Your task to perform on an android device: toggle sleep mode Image 0: 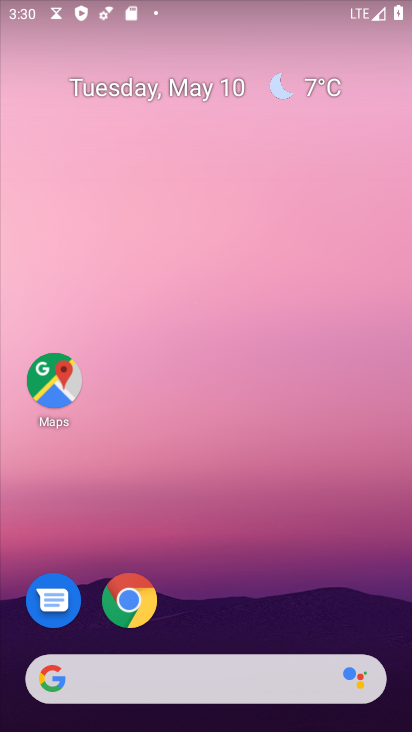
Step 0: click (136, 582)
Your task to perform on an android device: toggle sleep mode Image 1: 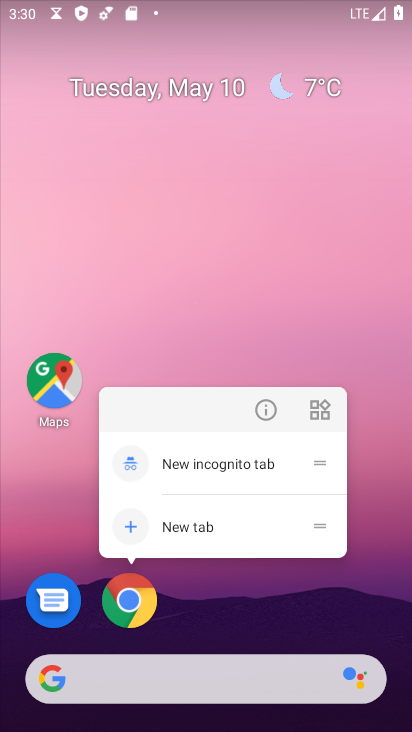
Step 1: click (144, 586)
Your task to perform on an android device: toggle sleep mode Image 2: 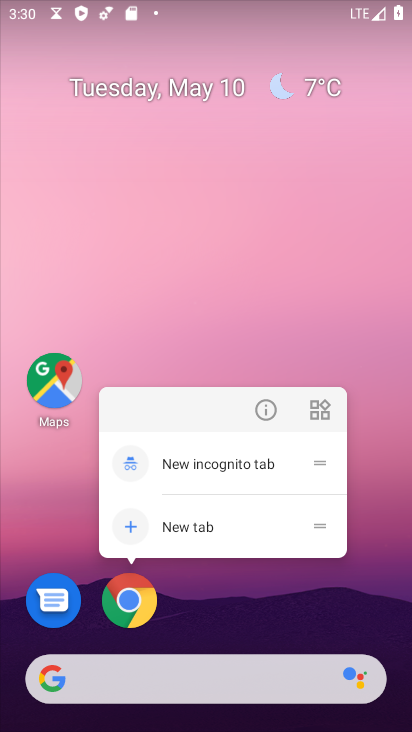
Step 2: click (159, 608)
Your task to perform on an android device: toggle sleep mode Image 3: 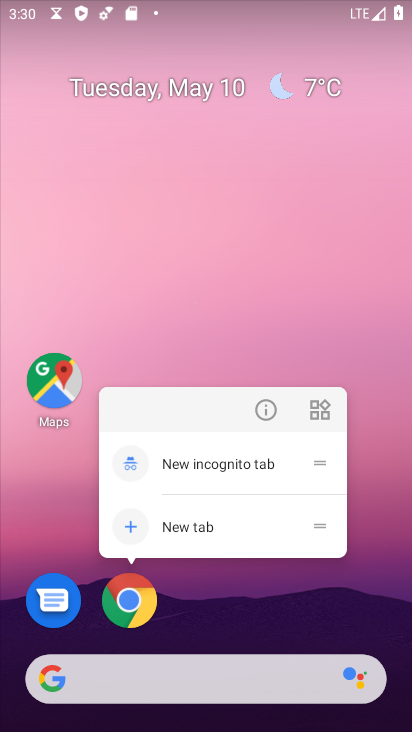
Step 3: click (138, 600)
Your task to perform on an android device: toggle sleep mode Image 4: 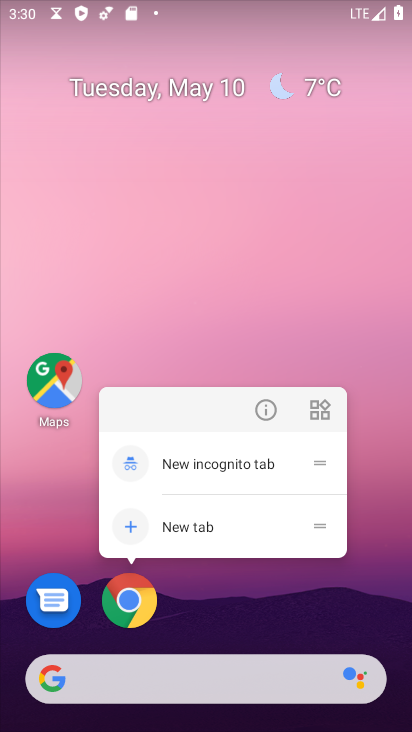
Step 4: click (137, 599)
Your task to perform on an android device: toggle sleep mode Image 5: 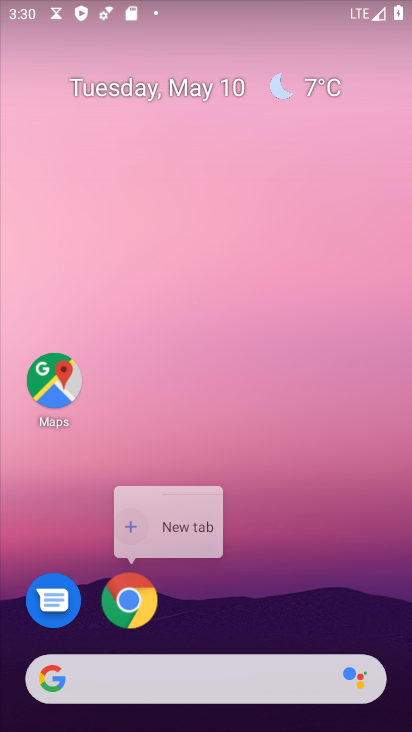
Step 5: click (137, 599)
Your task to perform on an android device: toggle sleep mode Image 6: 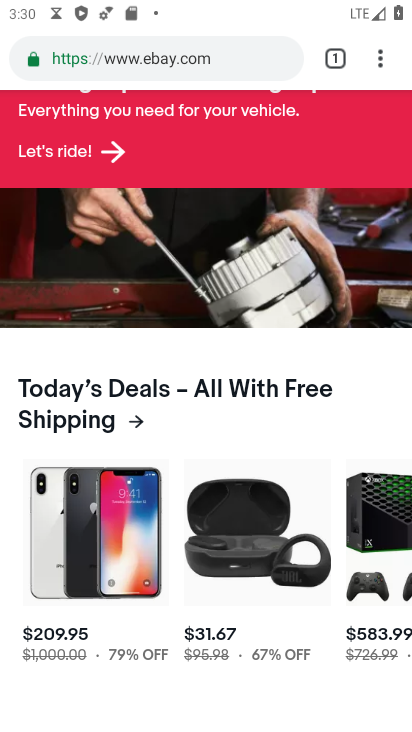
Step 6: click (383, 54)
Your task to perform on an android device: toggle sleep mode Image 7: 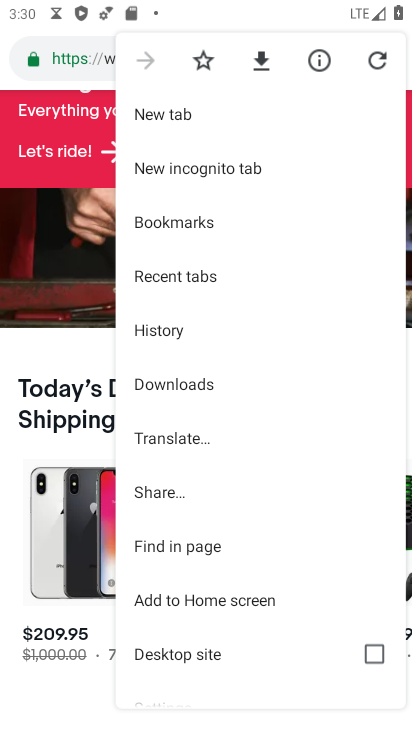
Step 7: drag from (207, 604) to (211, 310)
Your task to perform on an android device: toggle sleep mode Image 8: 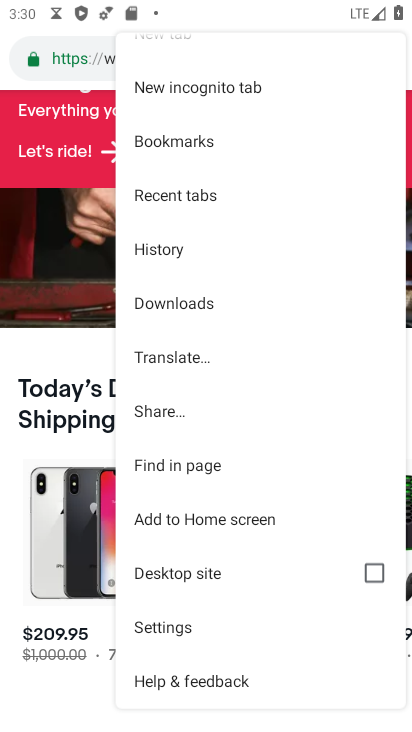
Step 8: click (302, 635)
Your task to perform on an android device: toggle sleep mode Image 9: 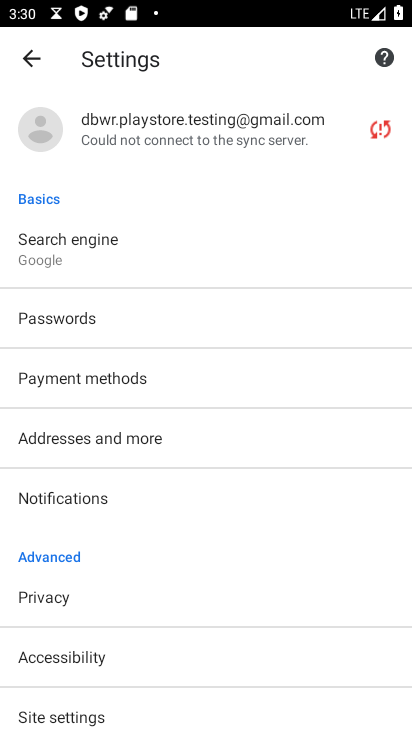
Step 9: drag from (94, 586) to (144, 355)
Your task to perform on an android device: toggle sleep mode Image 10: 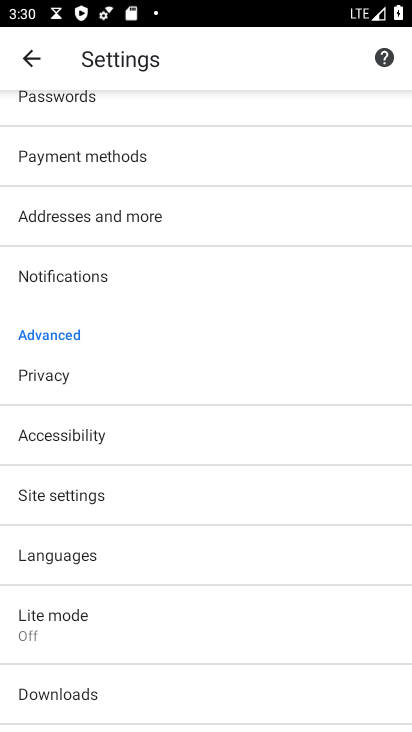
Step 10: click (201, 501)
Your task to perform on an android device: toggle sleep mode Image 11: 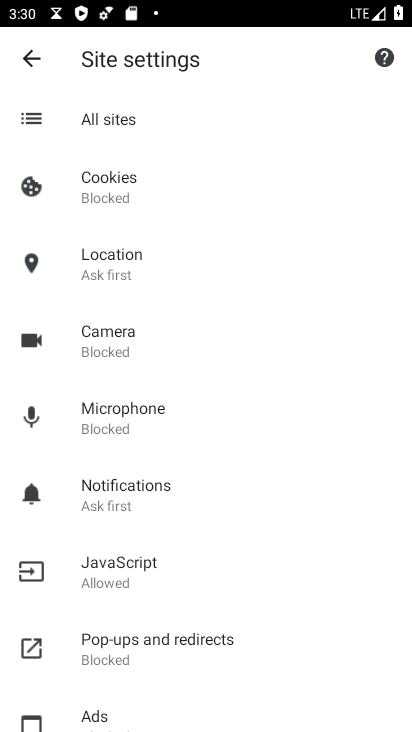
Step 11: drag from (197, 592) to (405, 262)
Your task to perform on an android device: toggle sleep mode Image 12: 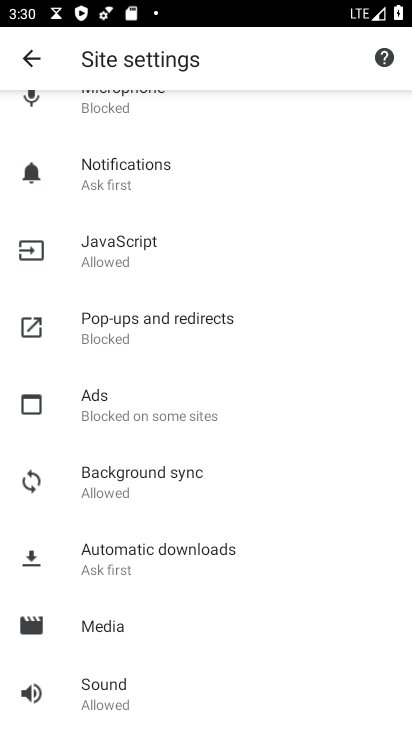
Step 12: drag from (131, 520) to (241, 140)
Your task to perform on an android device: toggle sleep mode Image 13: 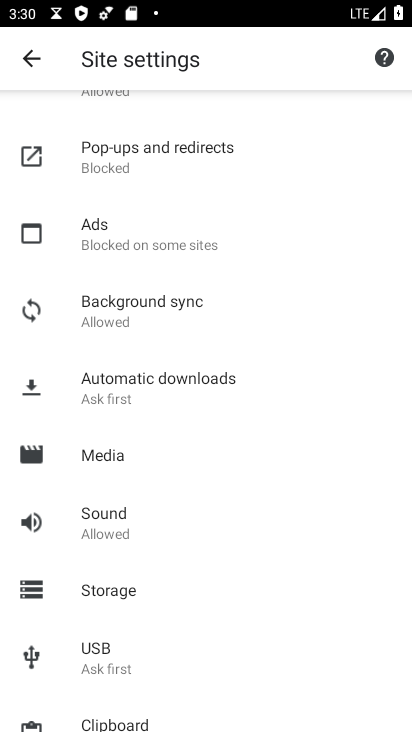
Step 13: drag from (232, 486) to (269, 192)
Your task to perform on an android device: toggle sleep mode Image 14: 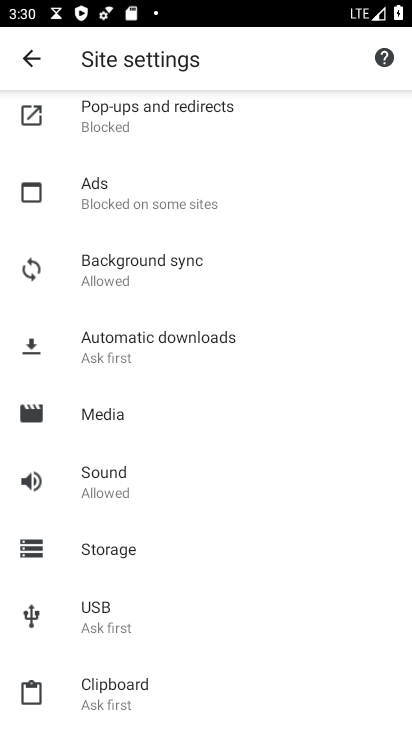
Step 14: click (47, 99)
Your task to perform on an android device: toggle sleep mode Image 15: 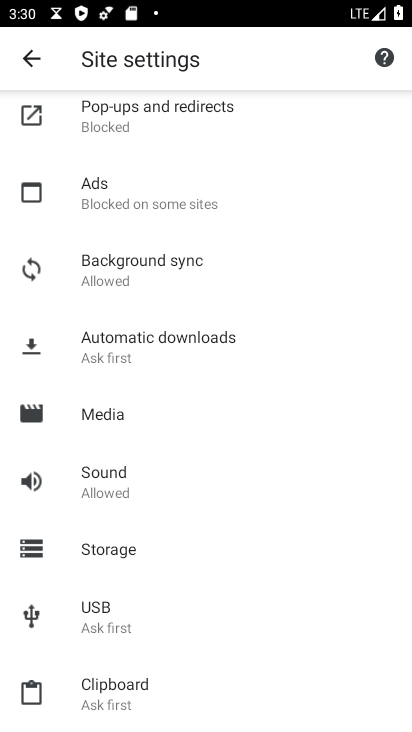
Step 15: press home button
Your task to perform on an android device: toggle sleep mode Image 16: 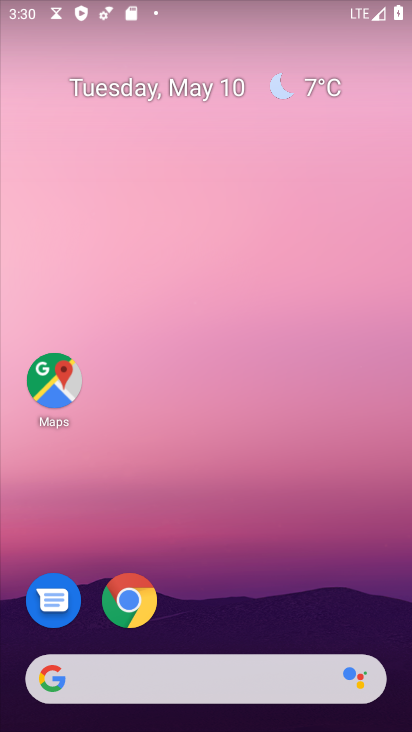
Step 16: drag from (166, 663) to (172, 619)
Your task to perform on an android device: toggle sleep mode Image 17: 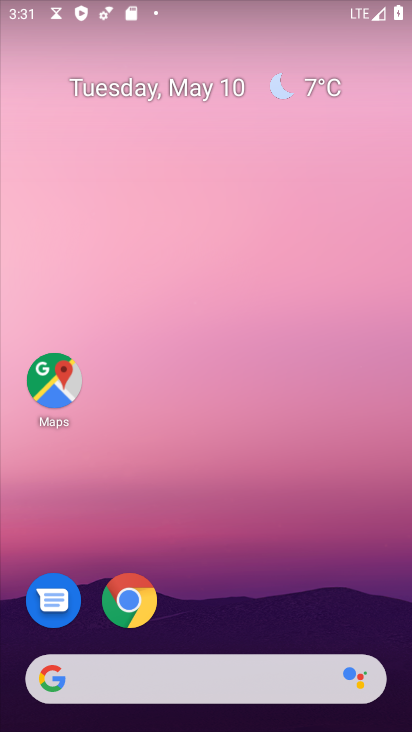
Step 17: click (145, 668)
Your task to perform on an android device: toggle sleep mode Image 18: 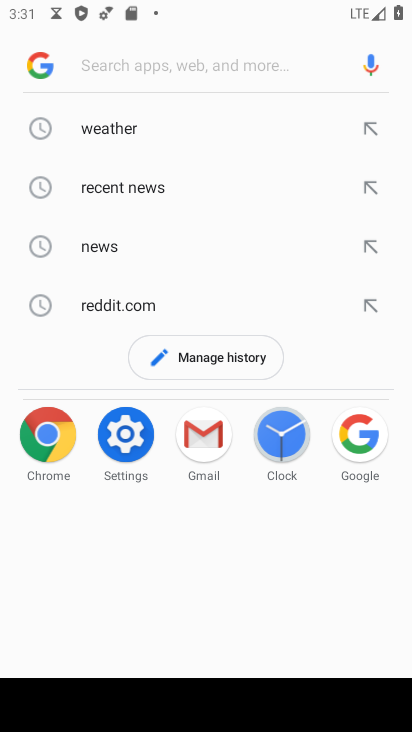
Step 18: click (262, 62)
Your task to perform on an android device: toggle sleep mode Image 19: 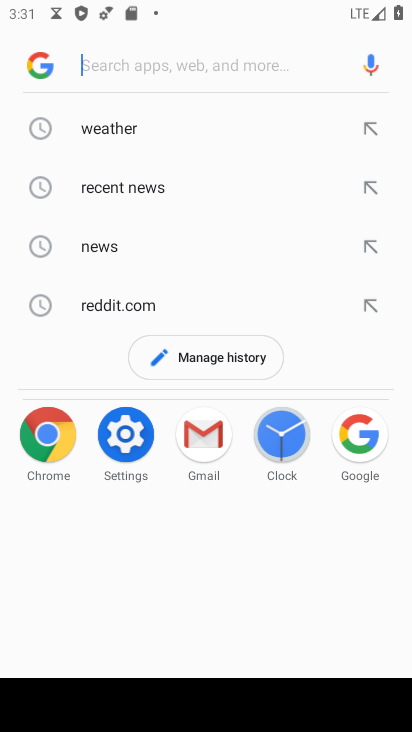
Step 19: click (354, 424)
Your task to perform on an android device: toggle sleep mode Image 20: 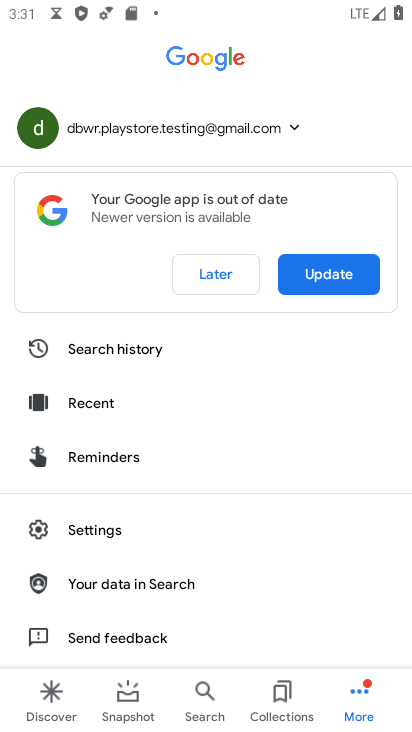
Step 20: drag from (176, 455) to (248, 190)
Your task to perform on an android device: toggle sleep mode Image 21: 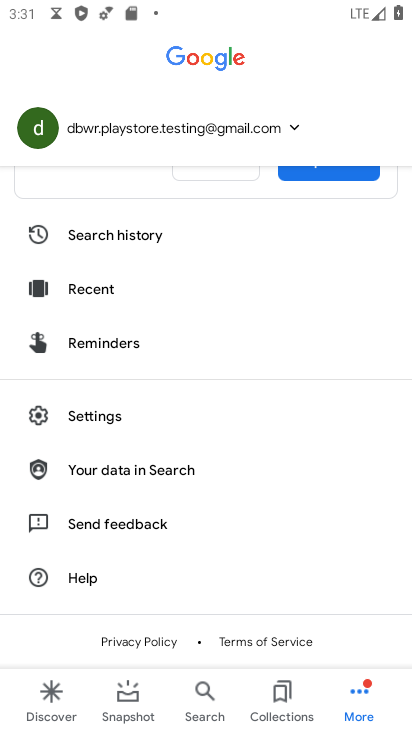
Step 21: click (155, 396)
Your task to perform on an android device: toggle sleep mode Image 22: 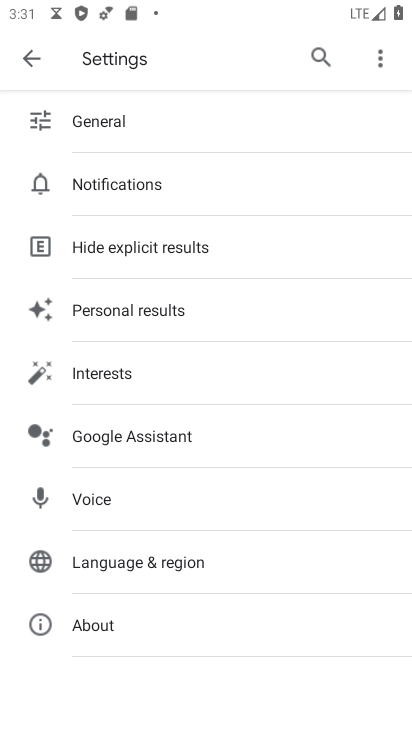
Step 22: task complete